Your task to perform on an android device: make emails show in primary in the gmail app Image 0: 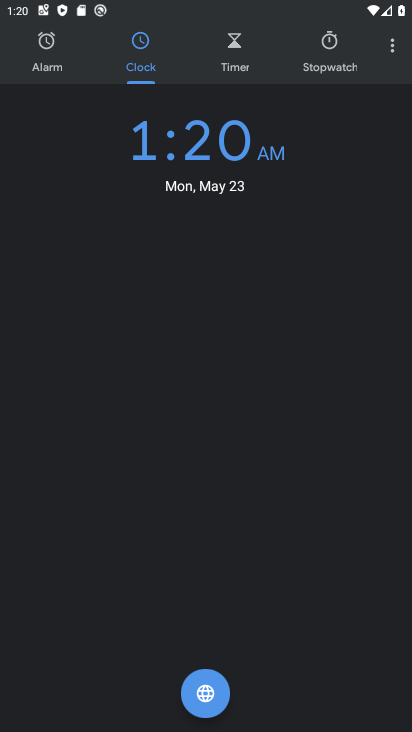
Step 0: press home button
Your task to perform on an android device: make emails show in primary in the gmail app Image 1: 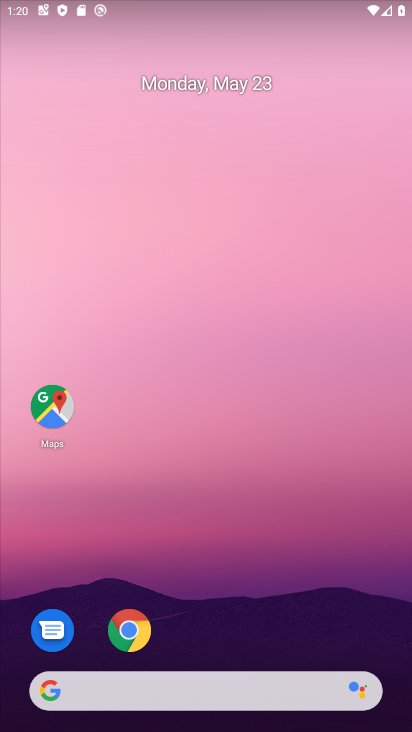
Step 1: drag from (361, 622) to (328, 251)
Your task to perform on an android device: make emails show in primary in the gmail app Image 2: 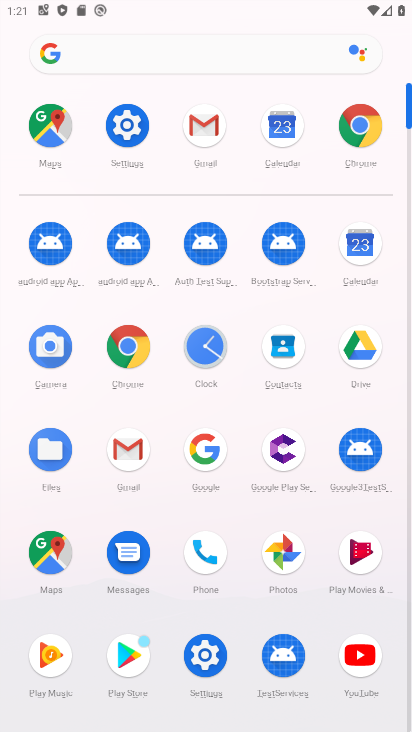
Step 2: click (123, 458)
Your task to perform on an android device: make emails show in primary in the gmail app Image 3: 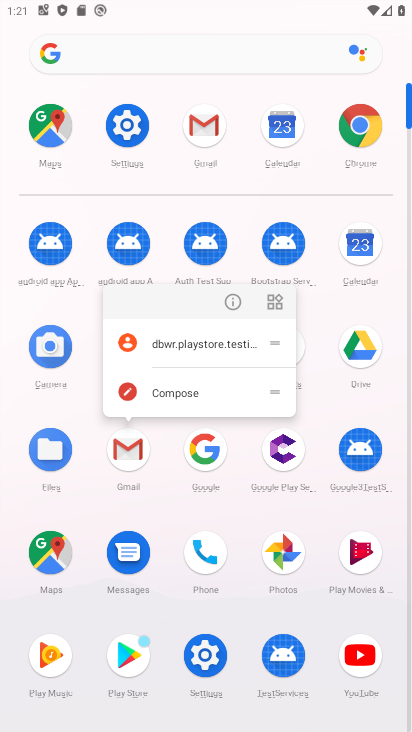
Step 3: click (129, 455)
Your task to perform on an android device: make emails show in primary in the gmail app Image 4: 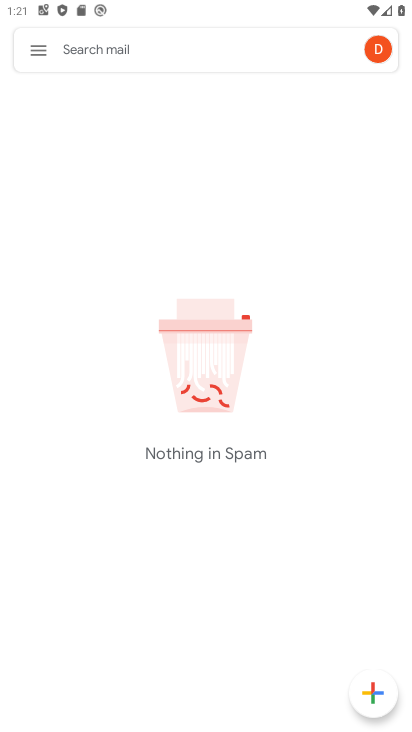
Step 4: click (28, 41)
Your task to perform on an android device: make emails show in primary in the gmail app Image 5: 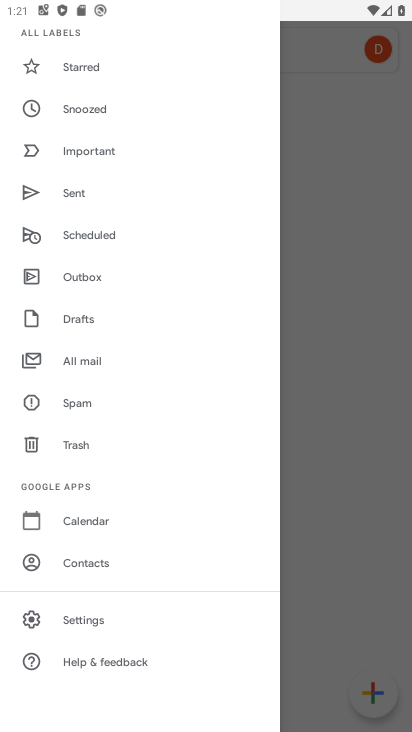
Step 5: click (100, 365)
Your task to perform on an android device: make emails show in primary in the gmail app Image 6: 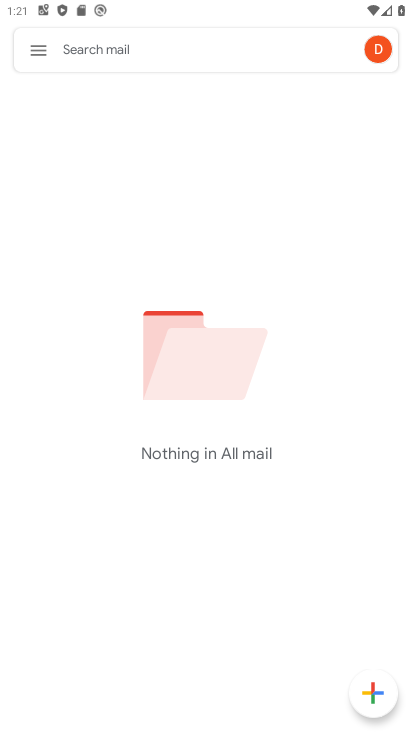
Step 6: click (26, 38)
Your task to perform on an android device: make emails show in primary in the gmail app Image 7: 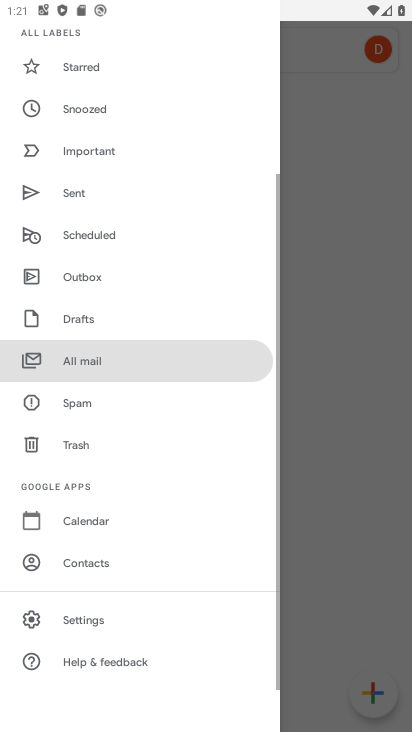
Step 7: click (26, 57)
Your task to perform on an android device: make emails show in primary in the gmail app Image 8: 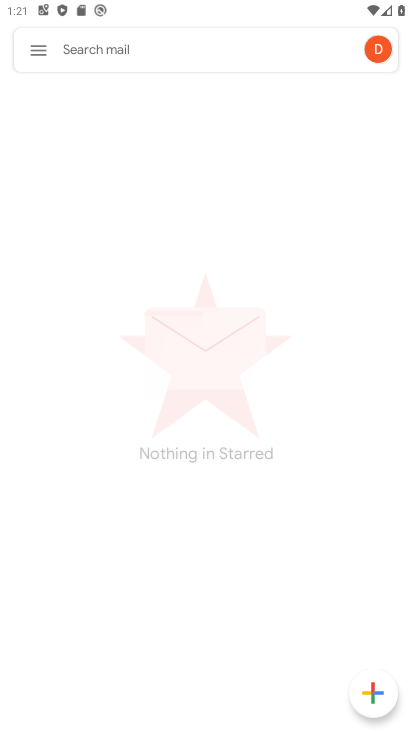
Step 8: drag from (173, 121) to (144, 382)
Your task to perform on an android device: make emails show in primary in the gmail app Image 9: 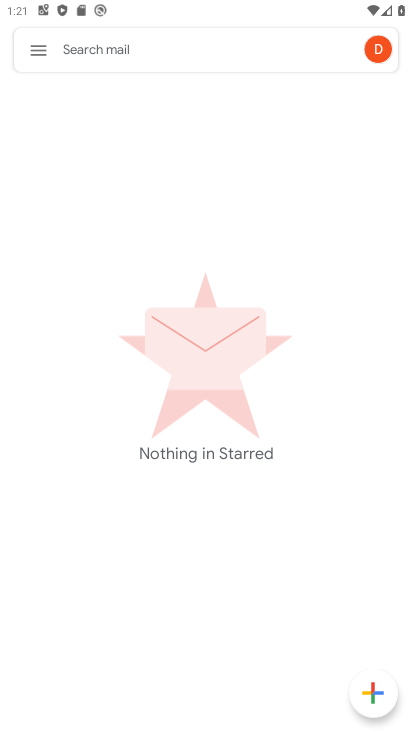
Step 9: click (33, 49)
Your task to perform on an android device: make emails show in primary in the gmail app Image 10: 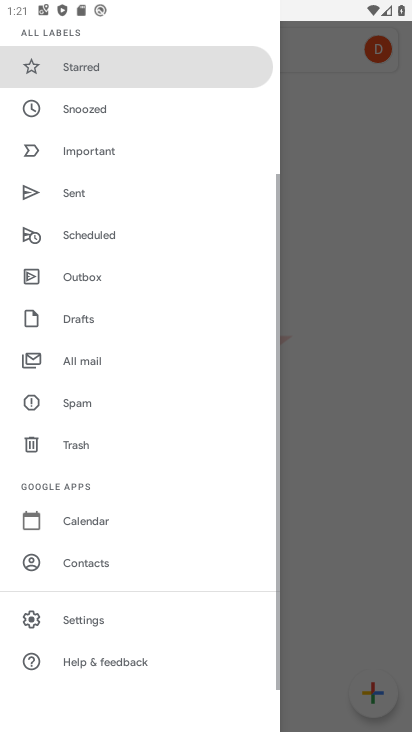
Step 10: drag from (195, 111) to (167, 535)
Your task to perform on an android device: make emails show in primary in the gmail app Image 11: 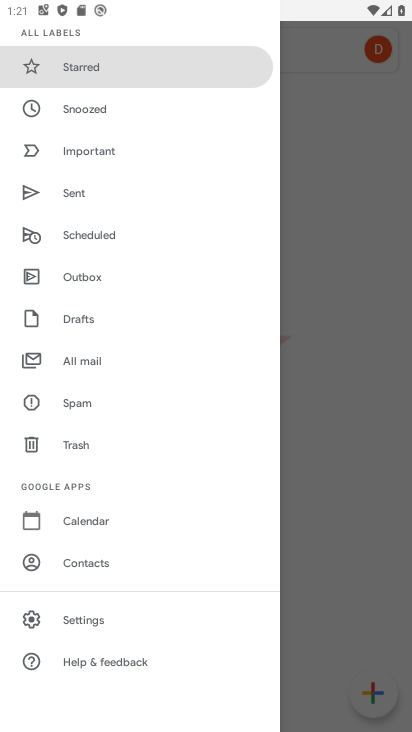
Step 11: drag from (129, 134) to (113, 577)
Your task to perform on an android device: make emails show in primary in the gmail app Image 12: 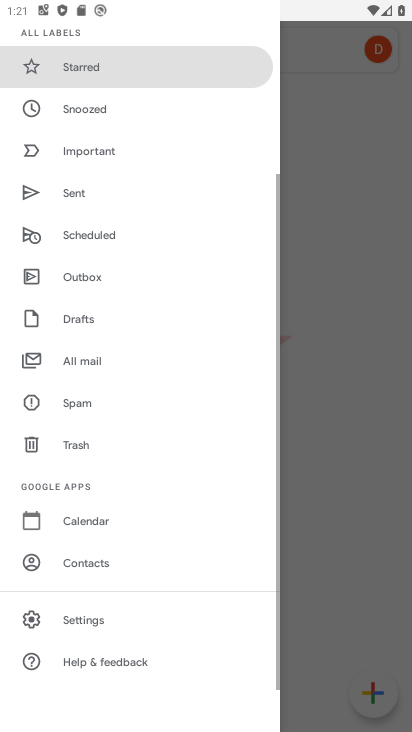
Step 12: drag from (103, 137) to (157, 597)
Your task to perform on an android device: make emails show in primary in the gmail app Image 13: 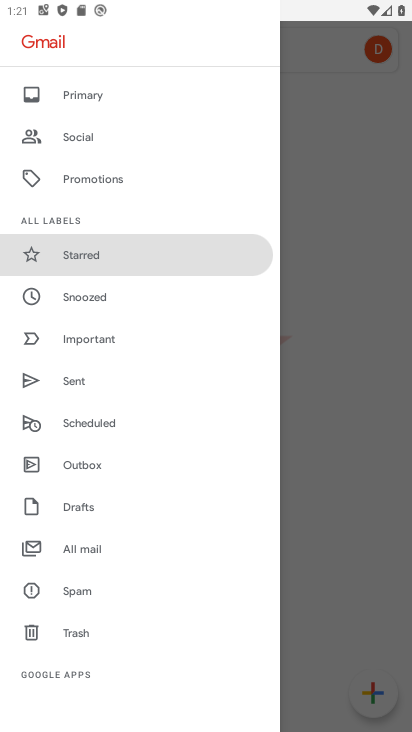
Step 13: drag from (149, 156) to (123, 489)
Your task to perform on an android device: make emails show in primary in the gmail app Image 14: 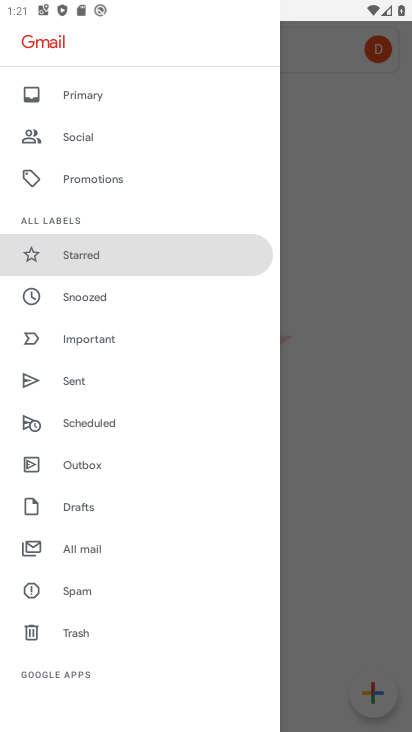
Step 14: click (89, 98)
Your task to perform on an android device: make emails show in primary in the gmail app Image 15: 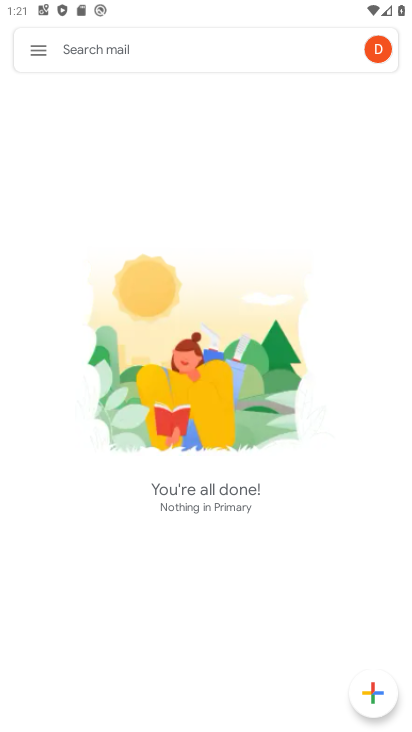
Step 15: task complete